Your task to perform on an android device: turn off improve location accuracy Image 0: 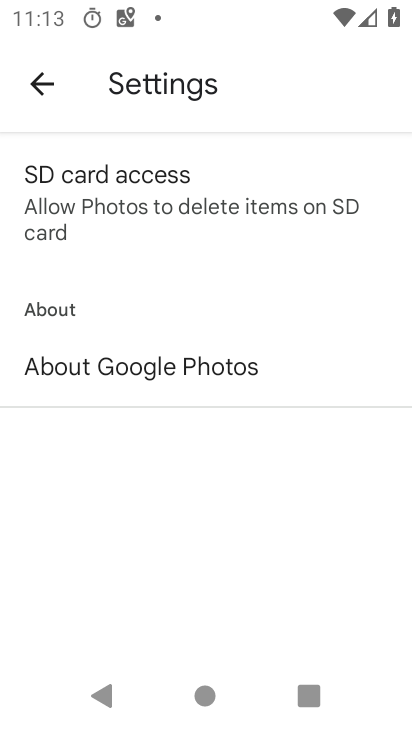
Step 0: press home button
Your task to perform on an android device: turn off improve location accuracy Image 1: 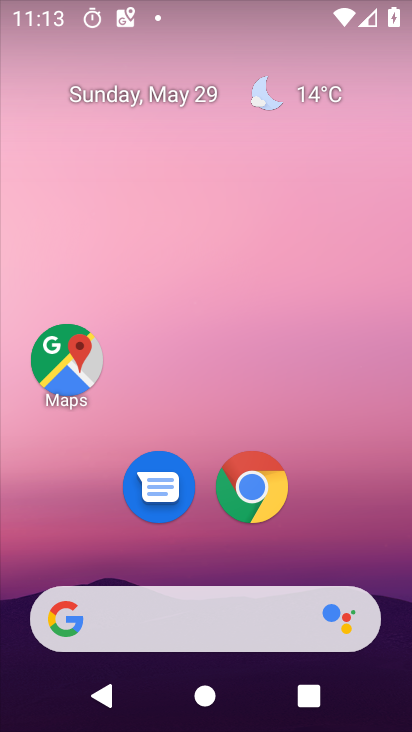
Step 1: drag from (390, 684) to (274, 51)
Your task to perform on an android device: turn off improve location accuracy Image 2: 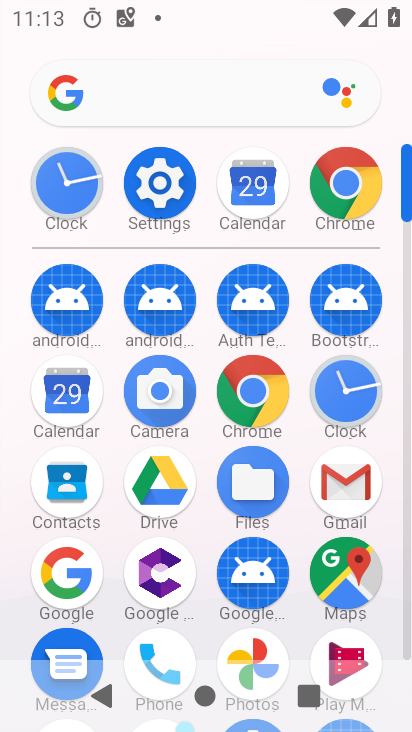
Step 2: click (164, 173)
Your task to perform on an android device: turn off improve location accuracy Image 3: 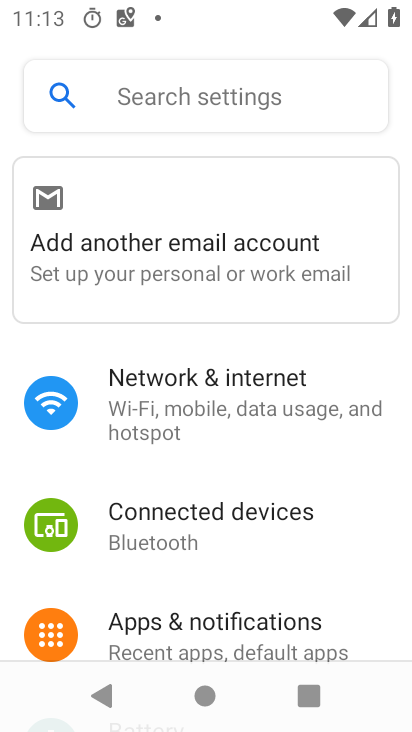
Step 3: drag from (384, 638) to (320, 256)
Your task to perform on an android device: turn off improve location accuracy Image 4: 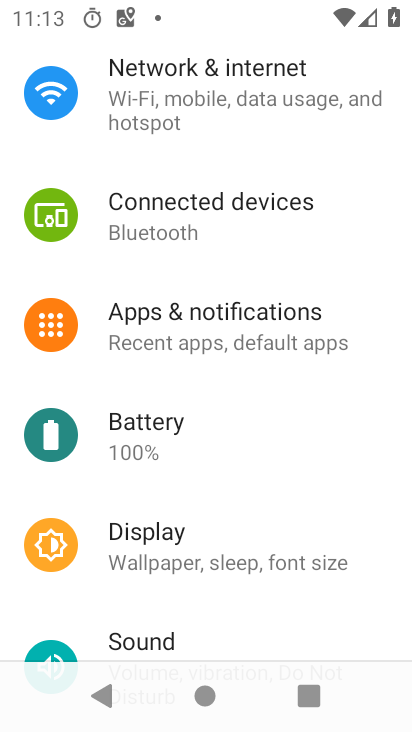
Step 4: drag from (268, 624) to (258, 260)
Your task to perform on an android device: turn off improve location accuracy Image 5: 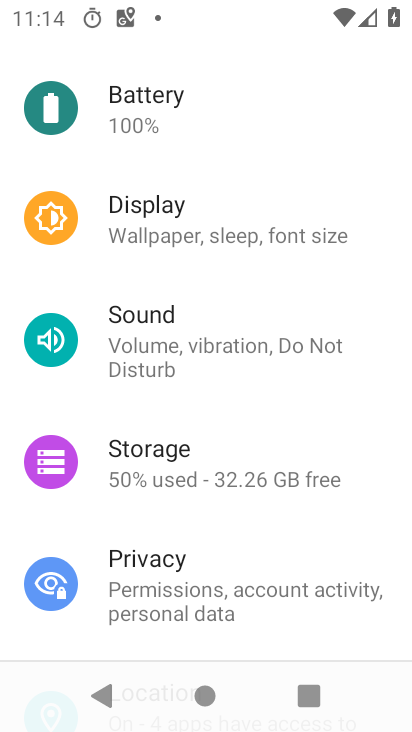
Step 5: drag from (281, 620) to (230, 275)
Your task to perform on an android device: turn off improve location accuracy Image 6: 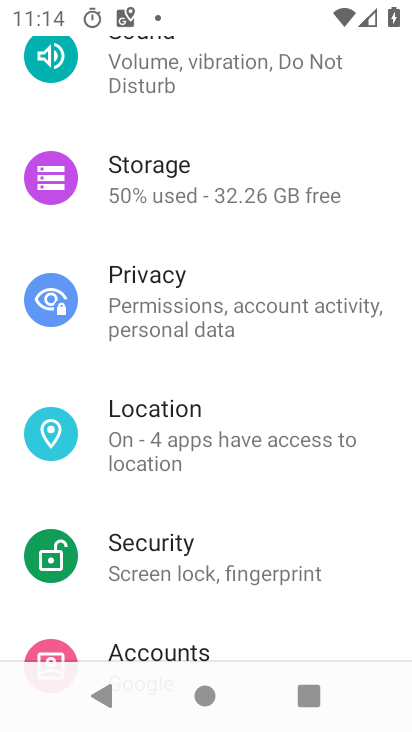
Step 6: click (156, 432)
Your task to perform on an android device: turn off improve location accuracy Image 7: 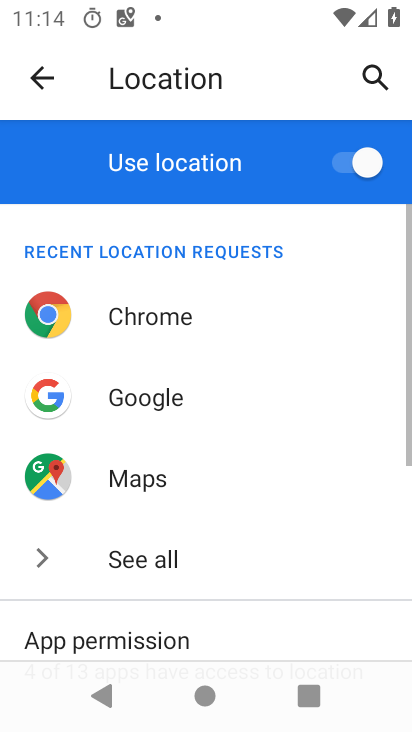
Step 7: drag from (318, 626) to (262, 247)
Your task to perform on an android device: turn off improve location accuracy Image 8: 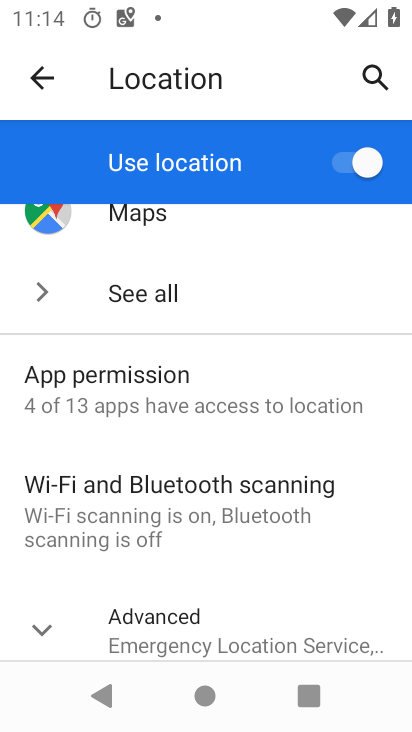
Step 8: click (38, 622)
Your task to perform on an android device: turn off improve location accuracy Image 9: 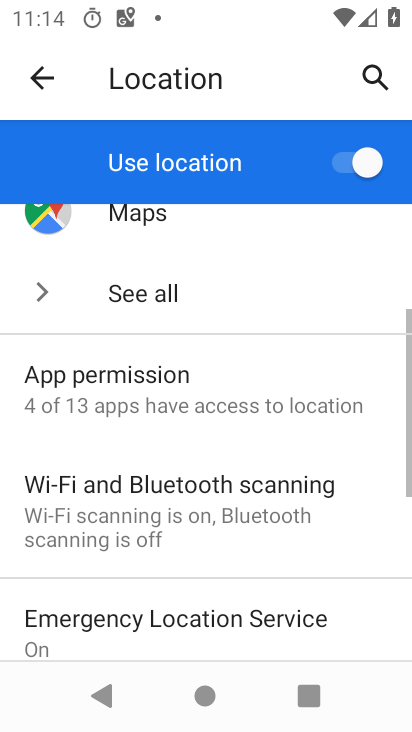
Step 9: drag from (340, 624) to (293, 249)
Your task to perform on an android device: turn off improve location accuracy Image 10: 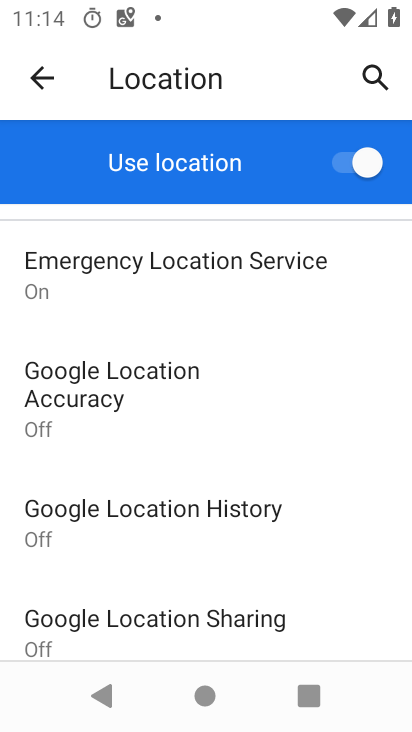
Step 10: click (109, 383)
Your task to perform on an android device: turn off improve location accuracy Image 11: 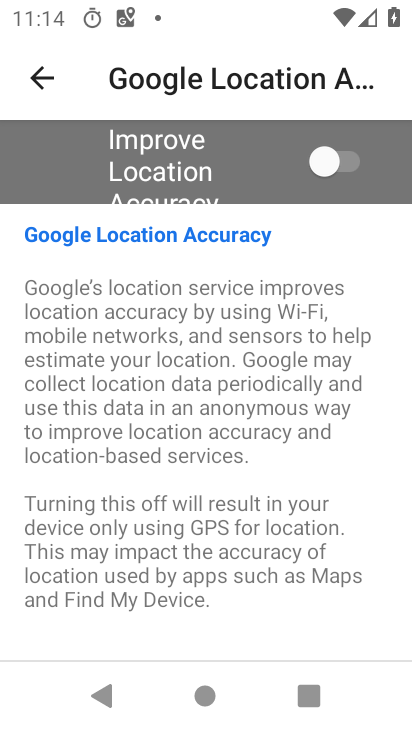
Step 11: task complete